Your task to perform on an android device: check the backup settings in the google photos Image 0: 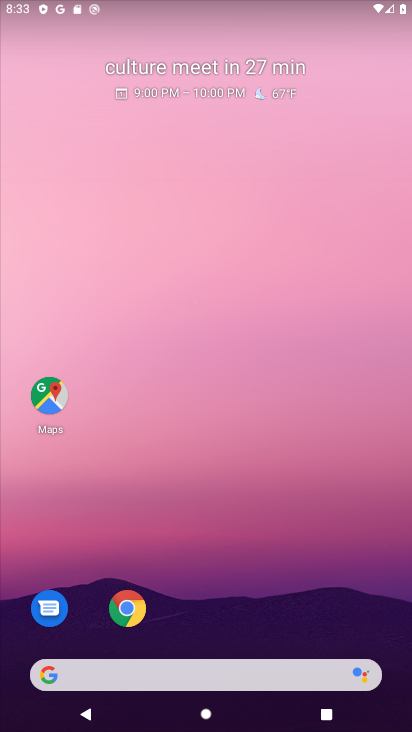
Step 0: drag from (242, 623) to (203, 178)
Your task to perform on an android device: check the backup settings in the google photos Image 1: 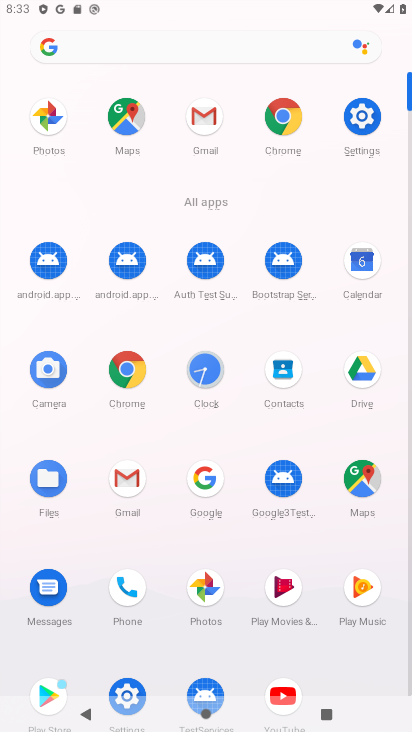
Step 1: click (206, 586)
Your task to perform on an android device: check the backup settings in the google photos Image 2: 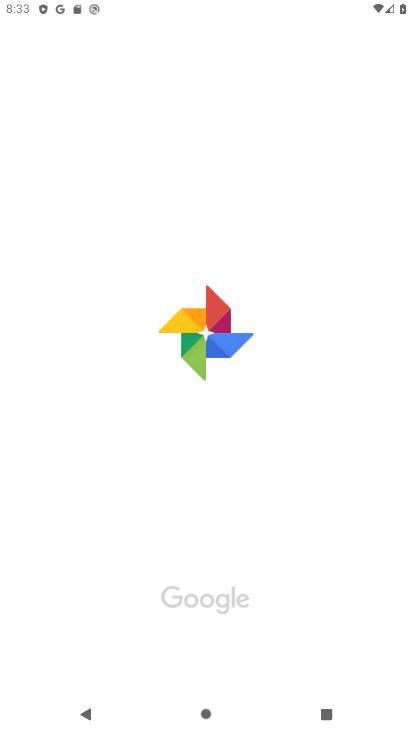
Step 2: task complete